Your task to perform on an android device: turn on notifications settings in the gmail app Image 0: 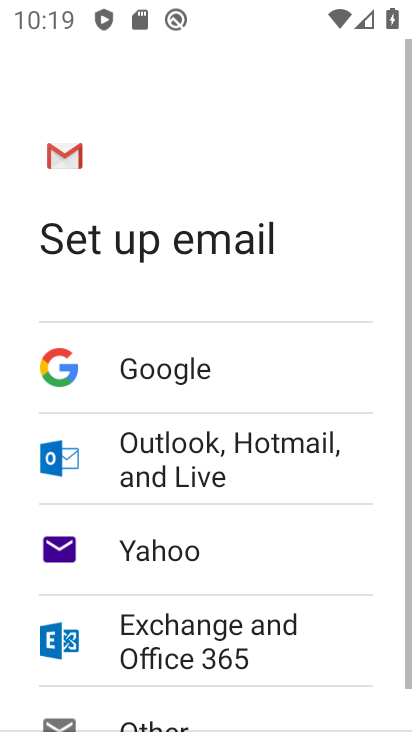
Step 0: press home button
Your task to perform on an android device: turn on notifications settings in the gmail app Image 1: 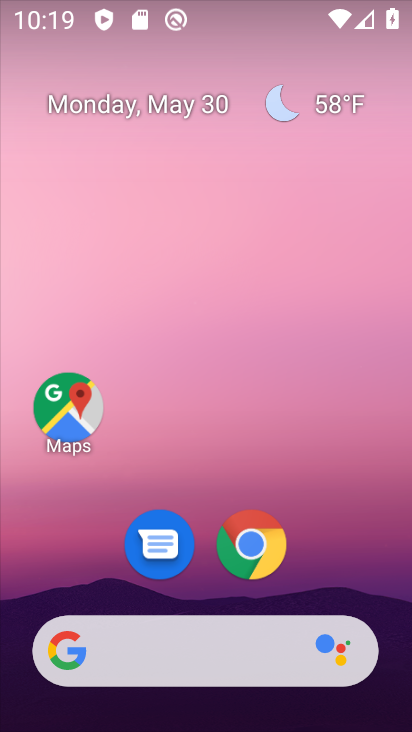
Step 1: drag from (371, 579) to (363, 135)
Your task to perform on an android device: turn on notifications settings in the gmail app Image 2: 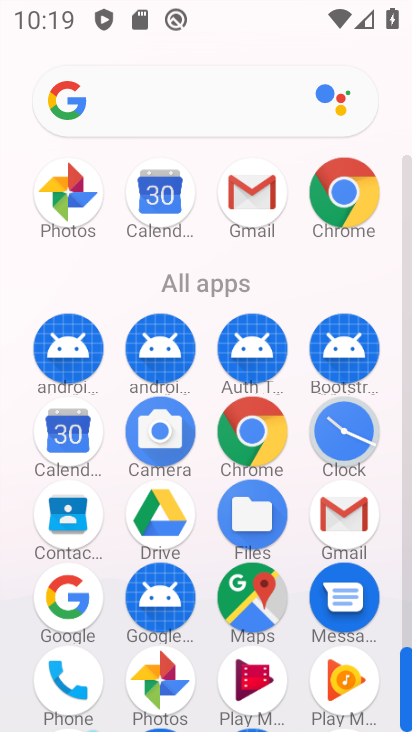
Step 2: click (256, 231)
Your task to perform on an android device: turn on notifications settings in the gmail app Image 3: 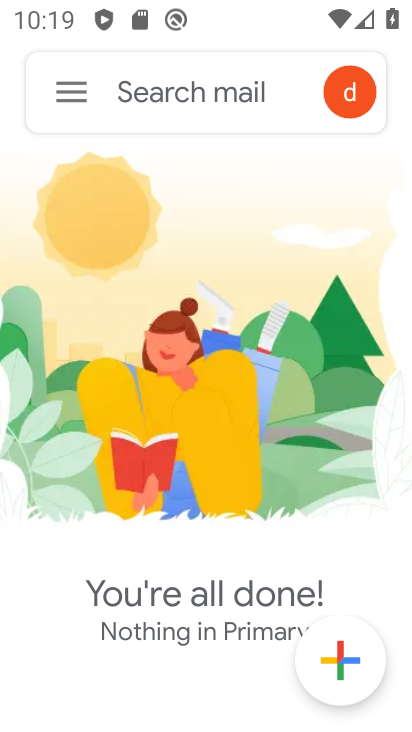
Step 3: click (73, 119)
Your task to perform on an android device: turn on notifications settings in the gmail app Image 4: 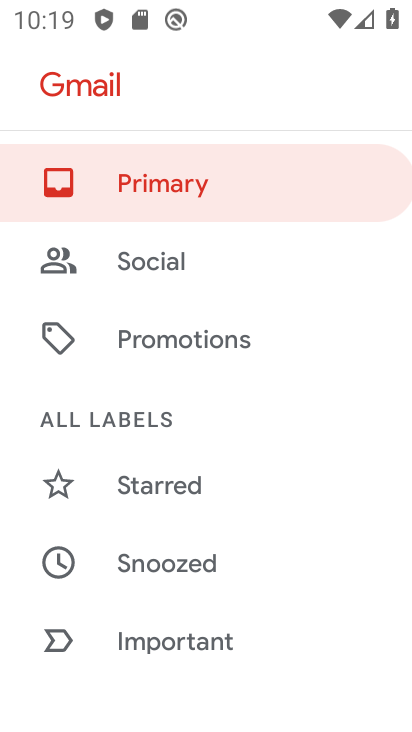
Step 4: drag from (236, 548) to (259, 183)
Your task to perform on an android device: turn on notifications settings in the gmail app Image 5: 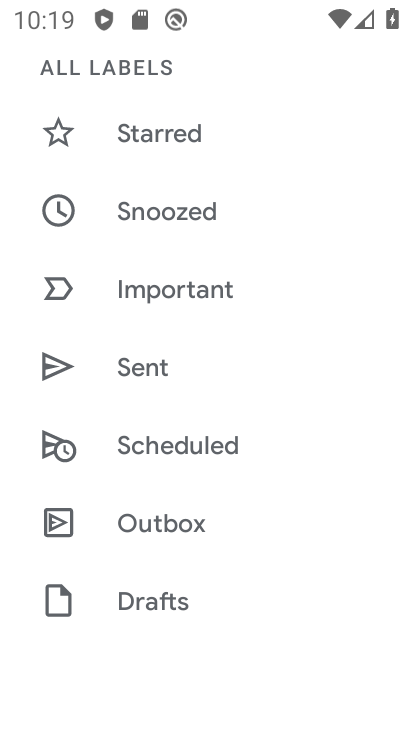
Step 5: drag from (266, 620) to (327, 195)
Your task to perform on an android device: turn on notifications settings in the gmail app Image 6: 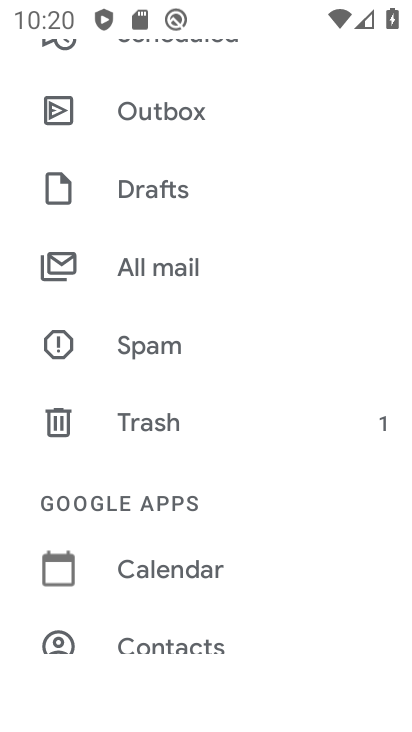
Step 6: drag from (315, 552) to (318, 285)
Your task to perform on an android device: turn on notifications settings in the gmail app Image 7: 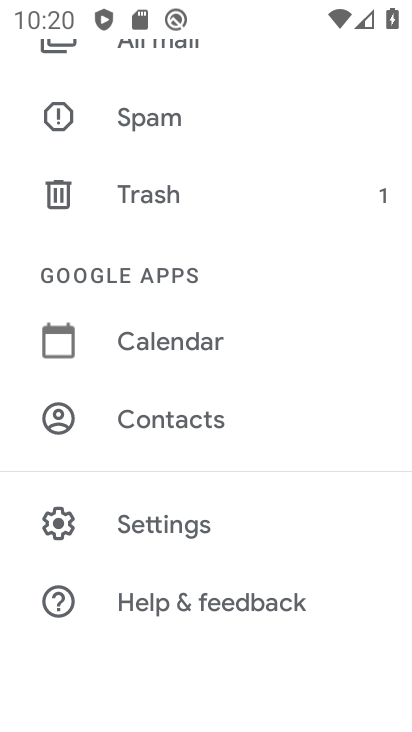
Step 7: click (253, 537)
Your task to perform on an android device: turn on notifications settings in the gmail app Image 8: 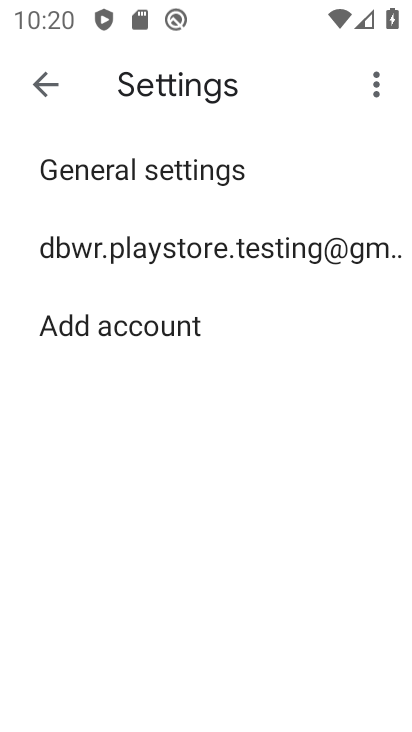
Step 8: click (111, 169)
Your task to perform on an android device: turn on notifications settings in the gmail app Image 9: 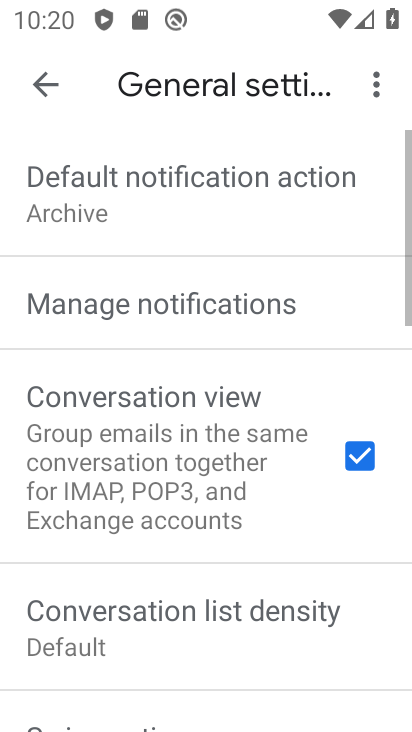
Step 9: task complete